Your task to perform on an android device: see sites visited before in the chrome app Image 0: 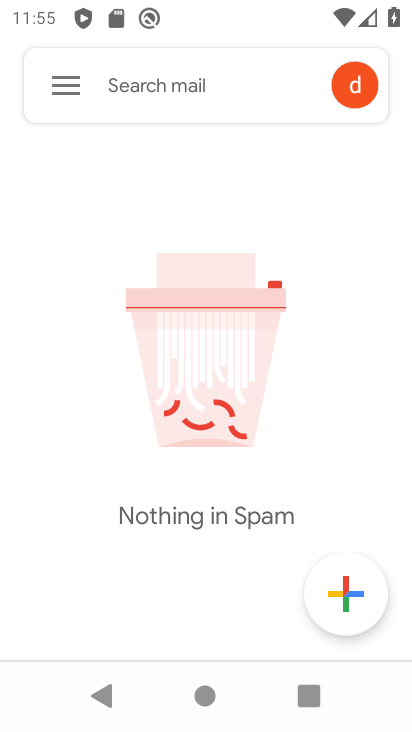
Step 0: press home button
Your task to perform on an android device: see sites visited before in the chrome app Image 1: 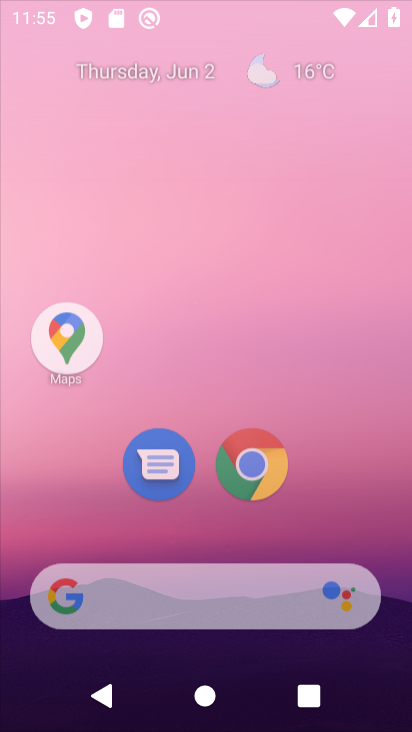
Step 1: click (269, 450)
Your task to perform on an android device: see sites visited before in the chrome app Image 2: 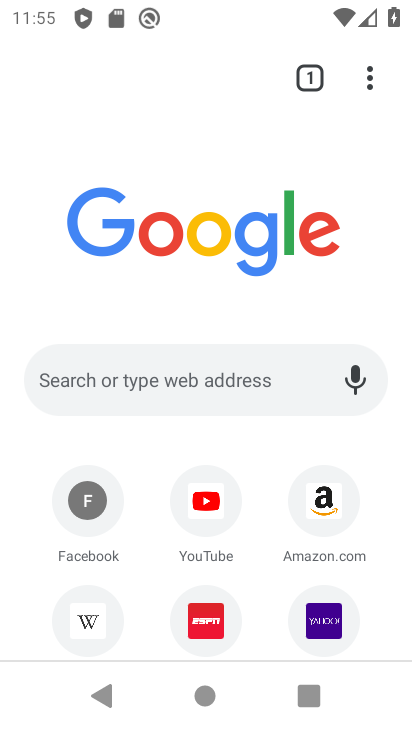
Step 2: click (371, 74)
Your task to perform on an android device: see sites visited before in the chrome app Image 3: 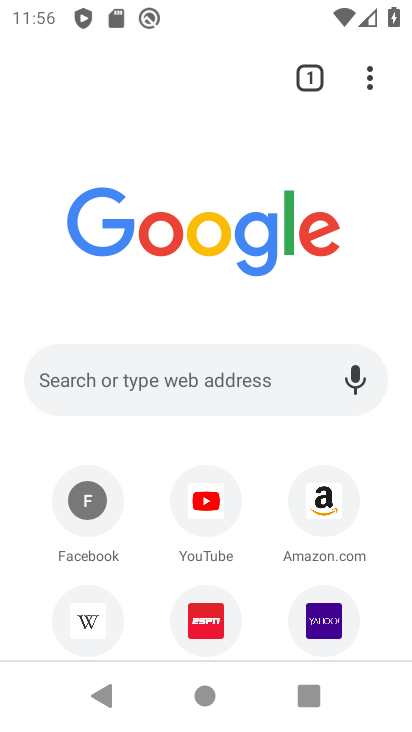
Step 3: drag from (370, 66) to (106, 371)
Your task to perform on an android device: see sites visited before in the chrome app Image 4: 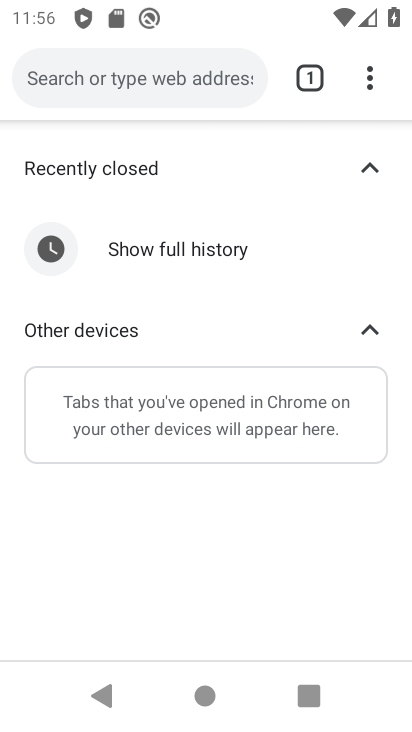
Step 4: click (168, 253)
Your task to perform on an android device: see sites visited before in the chrome app Image 5: 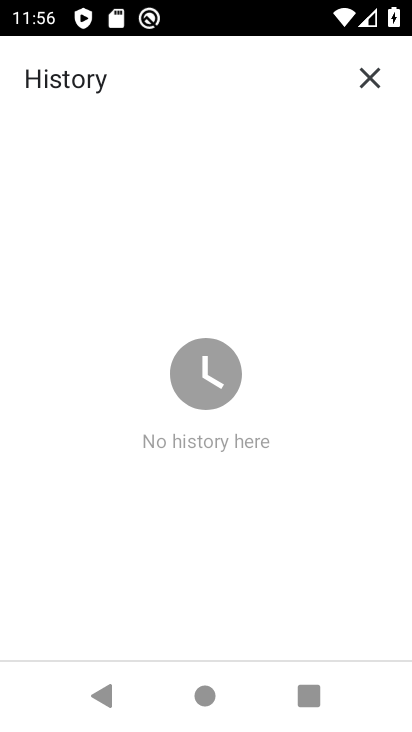
Step 5: task complete